Your task to perform on an android device: find which apps use the phone's location Image 0: 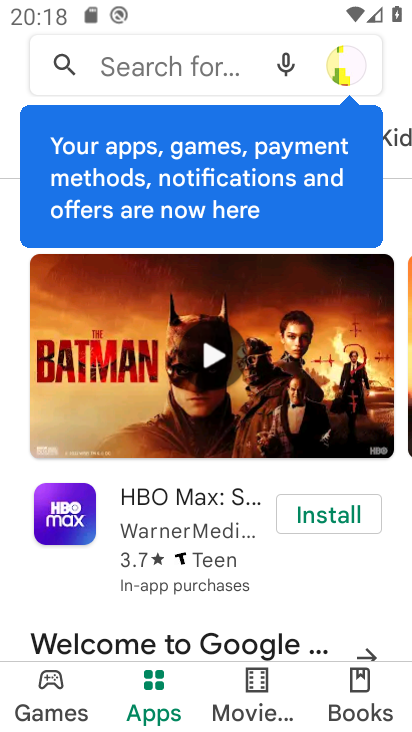
Step 0: press home button
Your task to perform on an android device: find which apps use the phone's location Image 1: 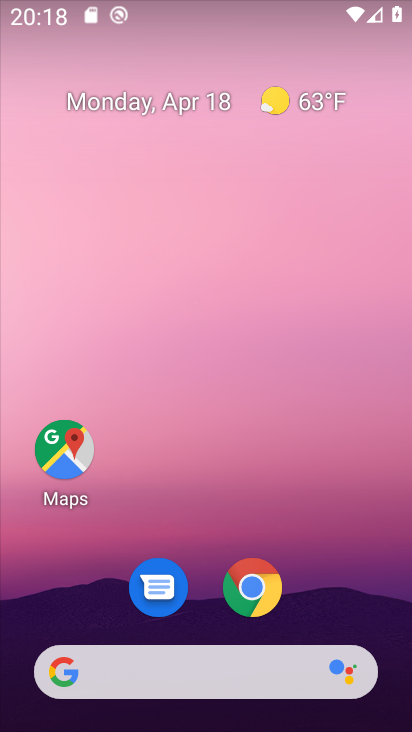
Step 1: drag from (330, 595) to (314, 89)
Your task to perform on an android device: find which apps use the phone's location Image 2: 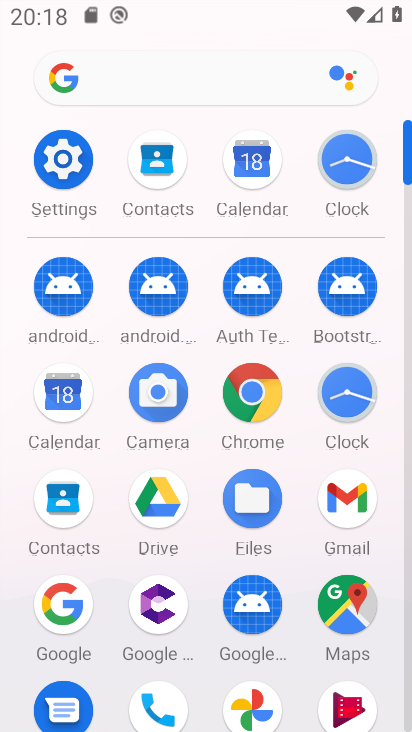
Step 2: drag from (402, 170) to (402, 251)
Your task to perform on an android device: find which apps use the phone's location Image 3: 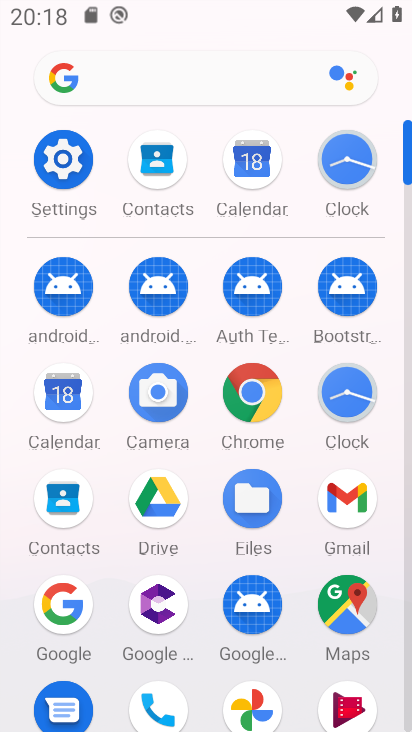
Step 3: click (161, 693)
Your task to perform on an android device: find which apps use the phone's location Image 4: 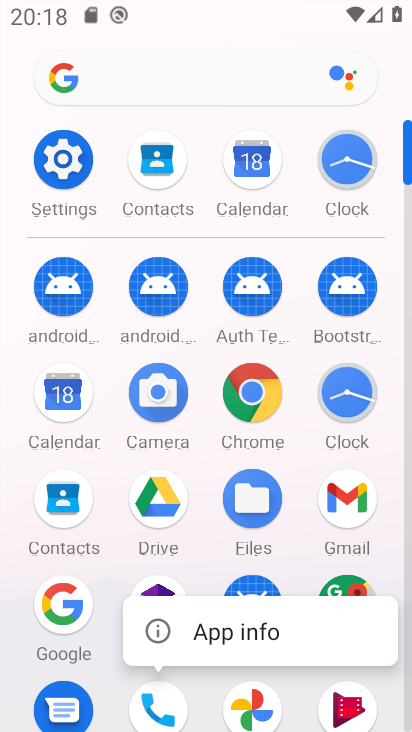
Step 4: click (411, 199)
Your task to perform on an android device: find which apps use the phone's location Image 5: 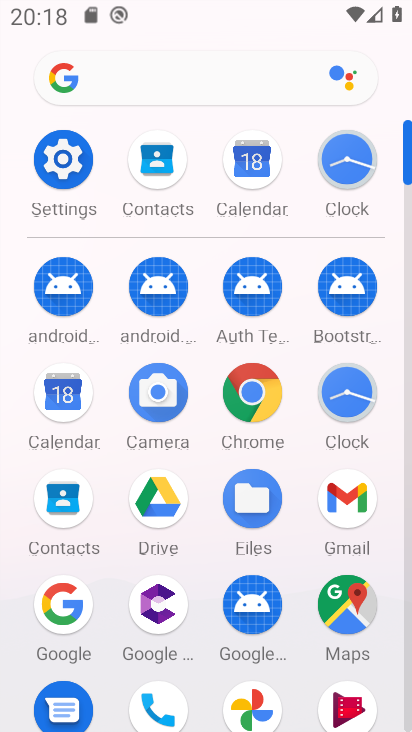
Step 5: click (407, 229)
Your task to perform on an android device: find which apps use the phone's location Image 6: 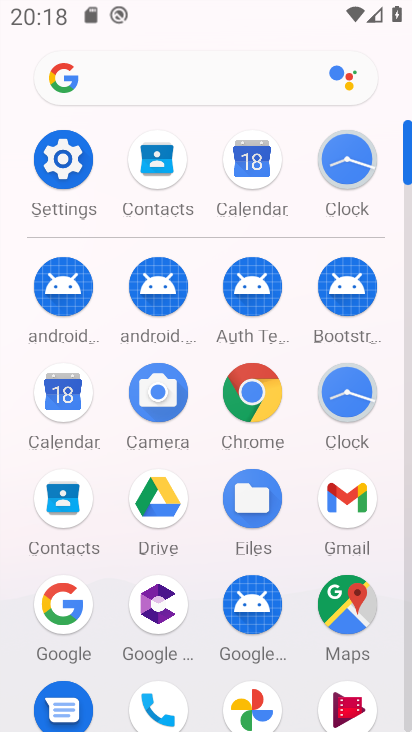
Step 6: click (407, 229)
Your task to perform on an android device: find which apps use the phone's location Image 7: 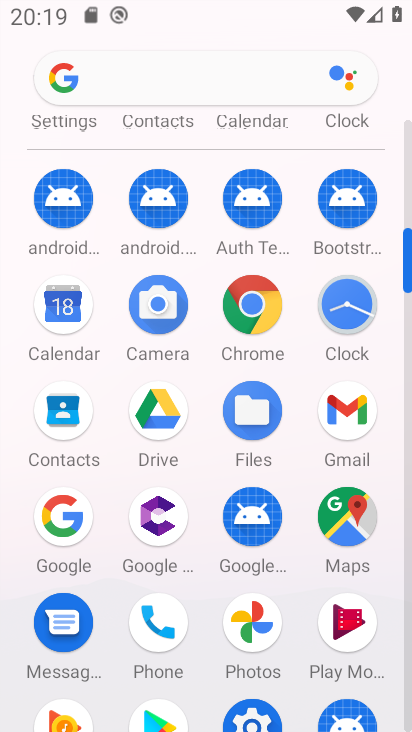
Step 7: click (172, 620)
Your task to perform on an android device: find which apps use the phone's location Image 8: 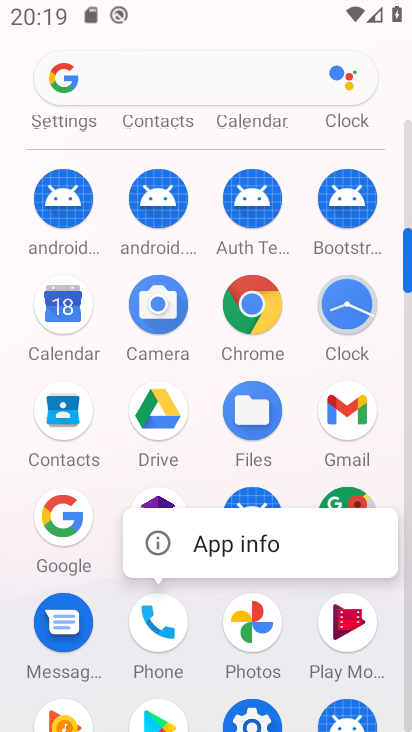
Step 8: click (172, 620)
Your task to perform on an android device: find which apps use the phone's location Image 9: 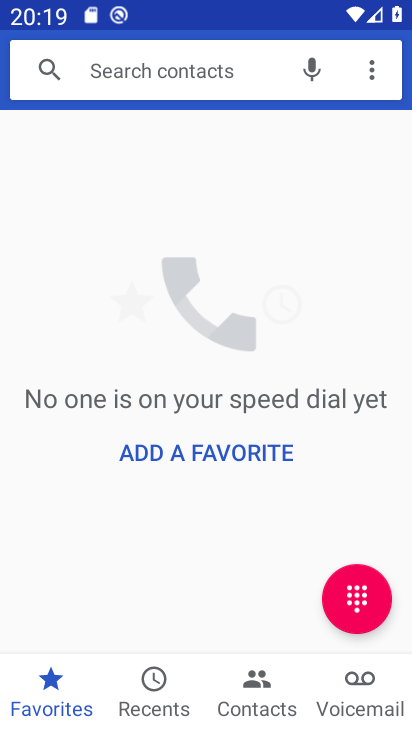
Step 9: press home button
Your task to perform on an android device: find which apps use the phone's location Image 10: 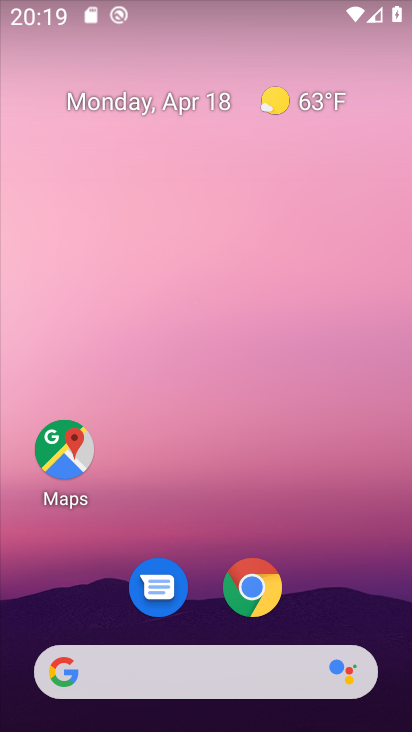
Step 10: drag from (350, 607) to (331, 202)
Your task to perform on an android device: find which apps use the phone's location Image 11: 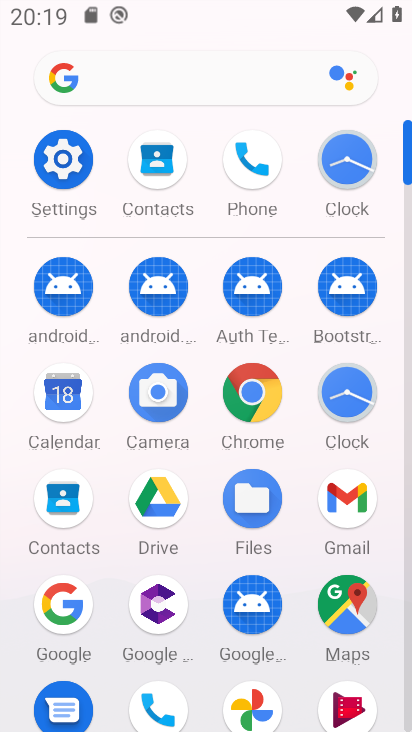
Step 11: click (65, 150)
Your task to perform on an android device: find which apps use the phone's location Image 12: 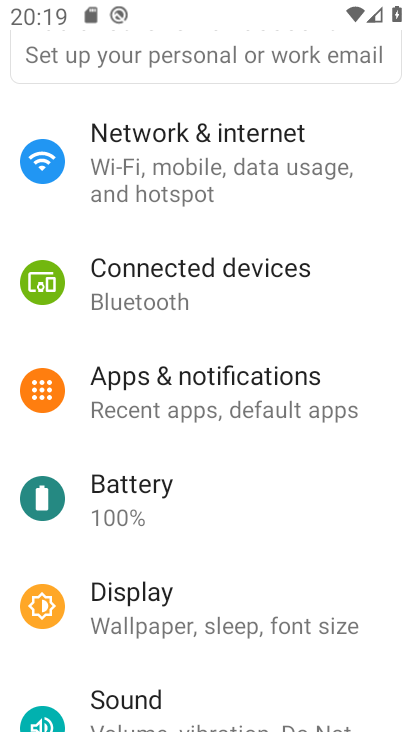
Step 12: drag from (204, 576) to (241, 394)
Your task to perform on an android device: find which apps use the phone's location Image 13: 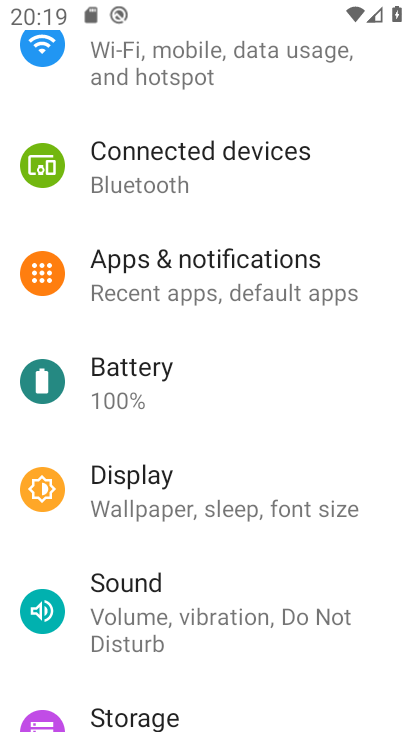
Step 13: drag from (215, 594) to (250, 255)
Your task to perform on an android device: find which apps use the phone's location Image 14: 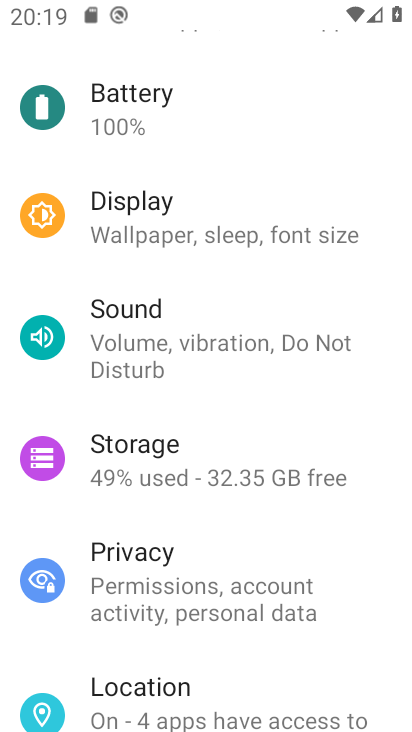
Step 14: drag from (194, 686) to (251, 356)
Your task to perform on an android device: find which apps use the phone's location Image 15: 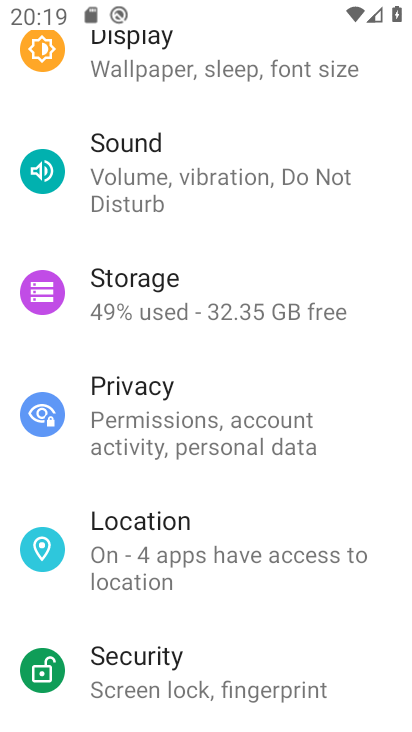
Step 15: click (204, 558)
Your task to perform on an android device: find which apps use the phone's location Image 16: 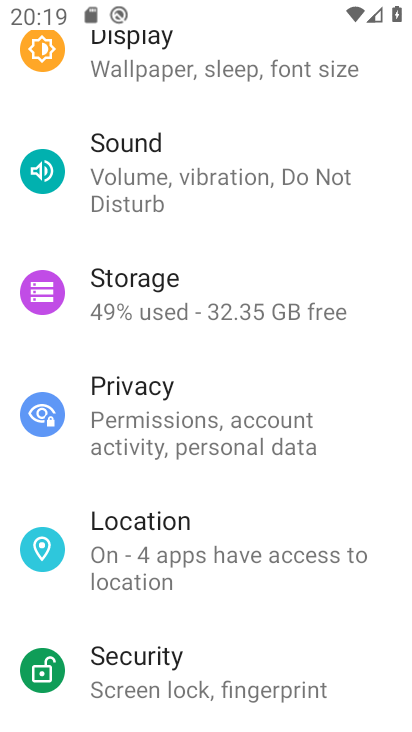
Step 16: click (251, 546)
Your task to perform on an android device: find which apps use the phone's location Image 17: 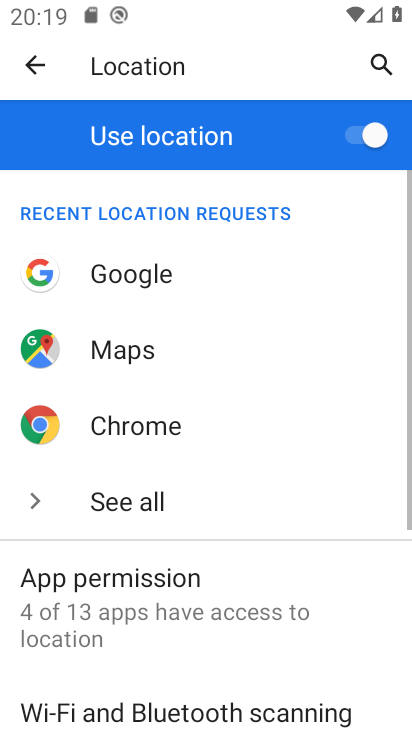
Step 17: click (144, 578)
Your task to perform on an android device: find which apps use the phone's location Image 18: 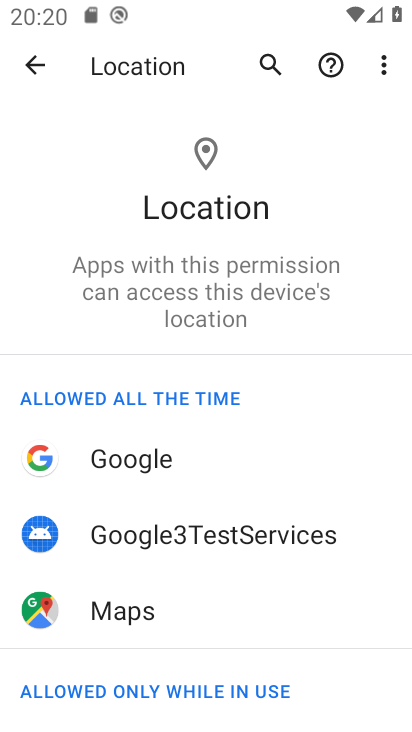
Step 18: task complete